Your task to perform on an android device: Go to accessibility settings Image 0: 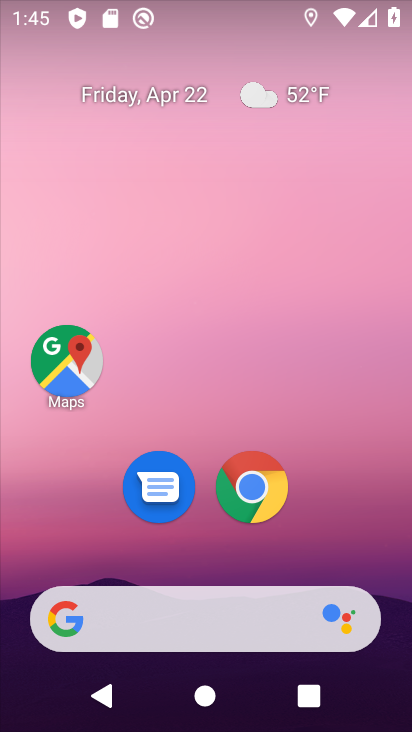
Step 0: drag from (215, 445) to (241, 206)
Your task to perform on an android device: Go to accessibility settings Image 1: 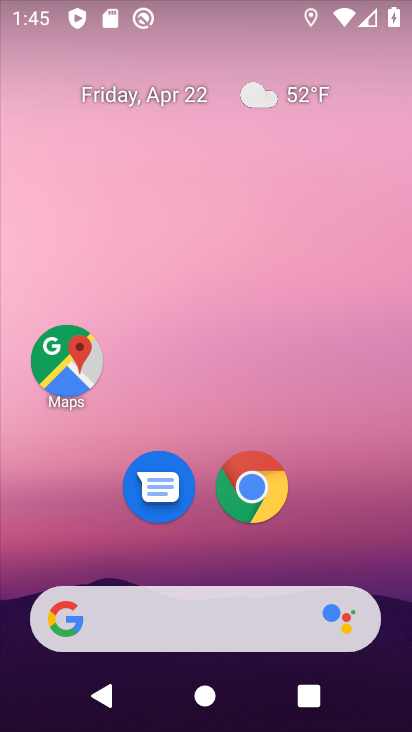
Step 1: drag from (208, 573) to (248, 63)
Your task to perform on an android device: Go to accessibility settings Image 2: 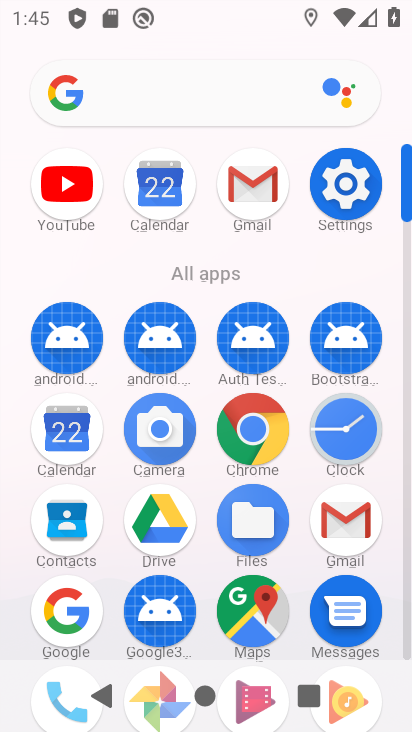
Step 2: click (349, 220)
Your task to perform on an android device: Go to accessibility settings Image 3: 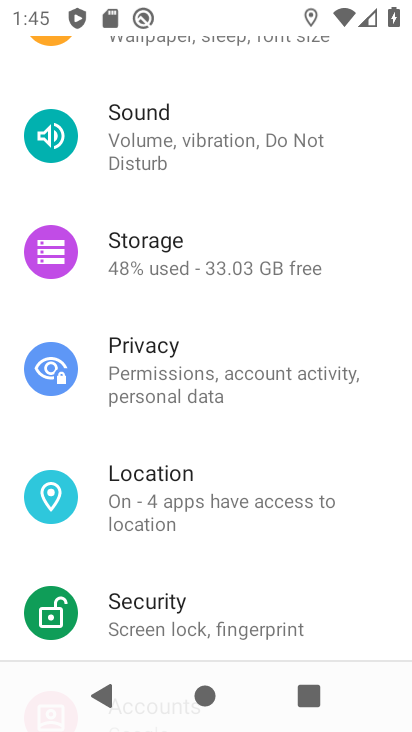
Step 3: drag from (208, 344) to (214, 535)
Your task to perform on an android device: Go to accessibility settings Image 4: 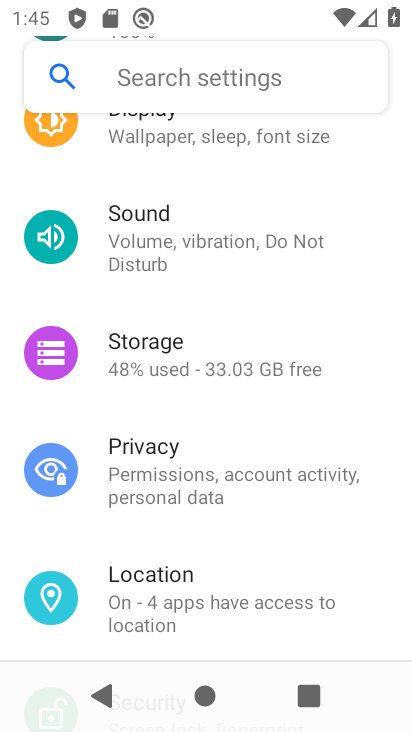
Step 4: drag from (208, 546) to (319, 63)
Your task to perform on an android device: Go to accessibility settings Image 5: 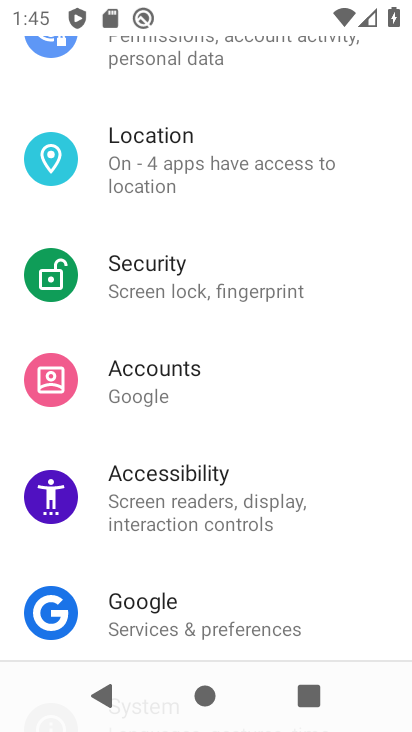
Step 5: click (199, 508)
Your task to perform on an android device: Go to accessibility settings Image 6: 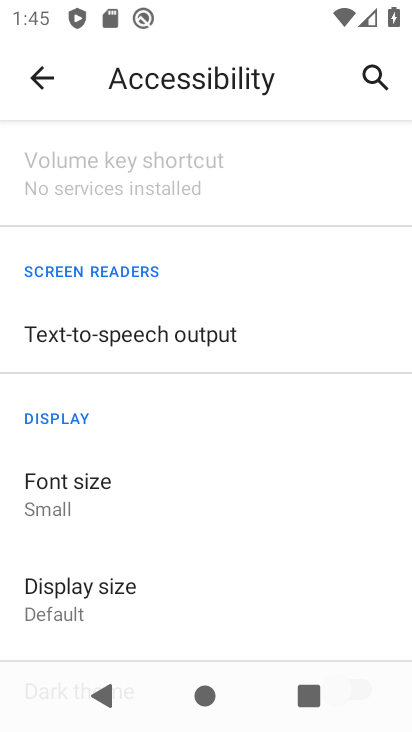
Step 6: task complete